Your task to perform on an android device: search for starred emails in the gmail app Image 0: 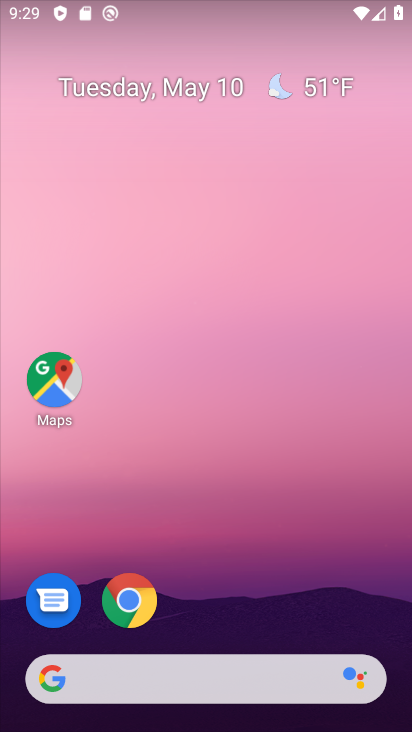
Step 0: drag from (375, 628) to (287, 19)
Your task to perform on an android device: search for starred emails in the gmail app Image 1: 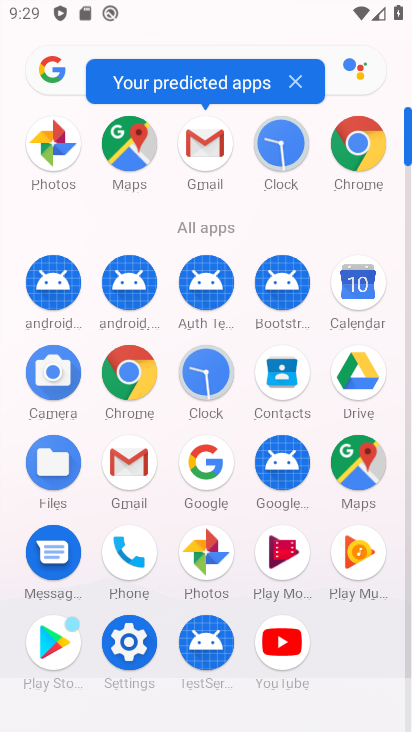
Step 1: click (408, 667)
Your task to perform on an android device: search for starred emails in the gmail app Image 2: 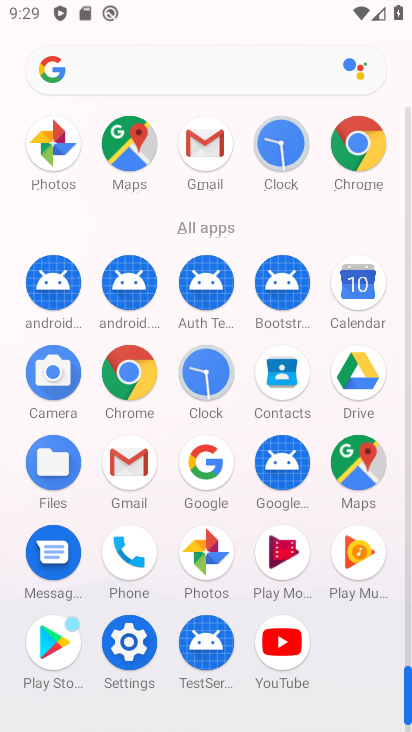
Step 2: click (125, 458)
Your task to perform on an android device: search for starred emails in the gmail app Image 3: 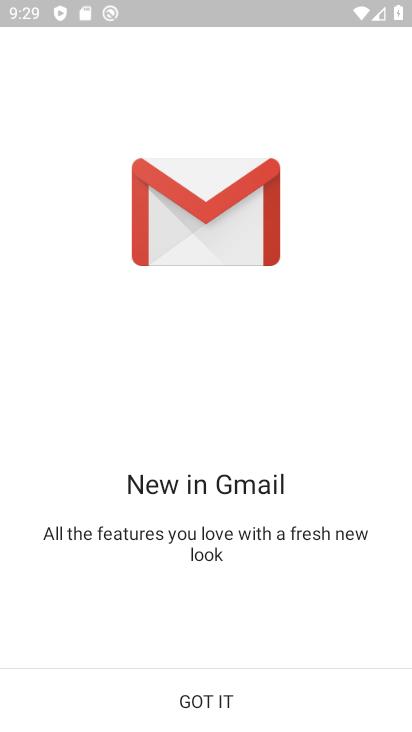
Step 3: click (206, 713)
Your task to perform on an android device: search for starred emails in the gmail app Image 4: 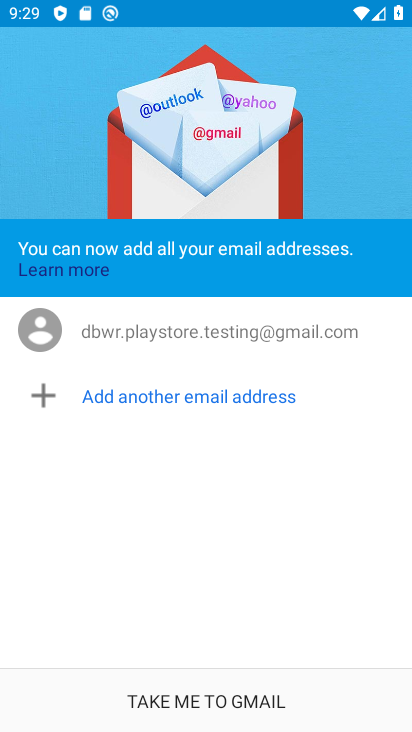
Step 4: click (198, 701)
Your task to perform on an android device: search for starred emails in the gmail app Image 5: 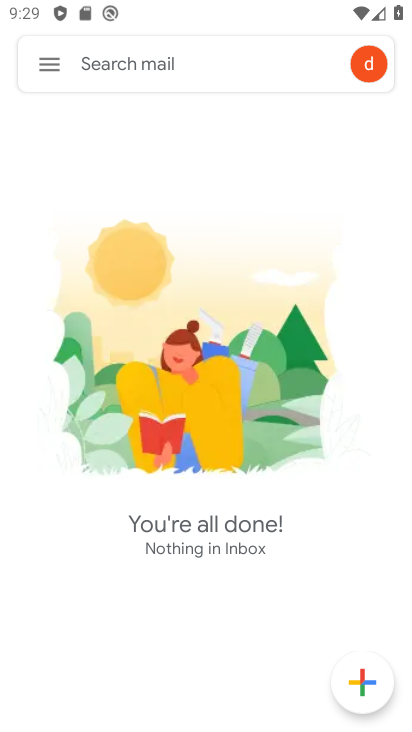
Step 5: click (38, 59)
Your task to perform on an android device: search for starred emails in the gmail app Image 6: 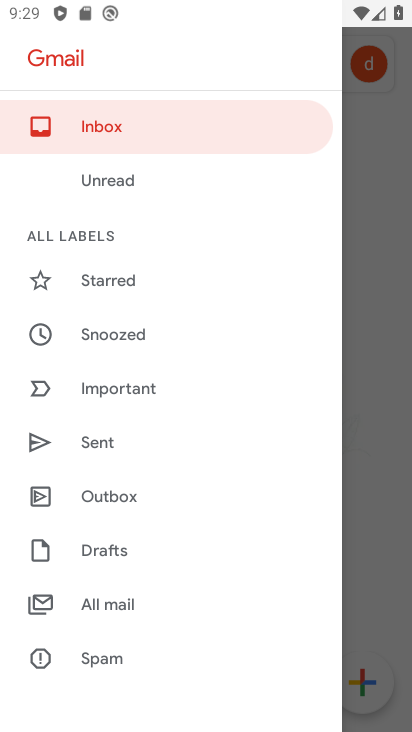
Step 6: click (100, 283)
Your task to perform on an android device: search for starred emails in the gmail app Image 7: 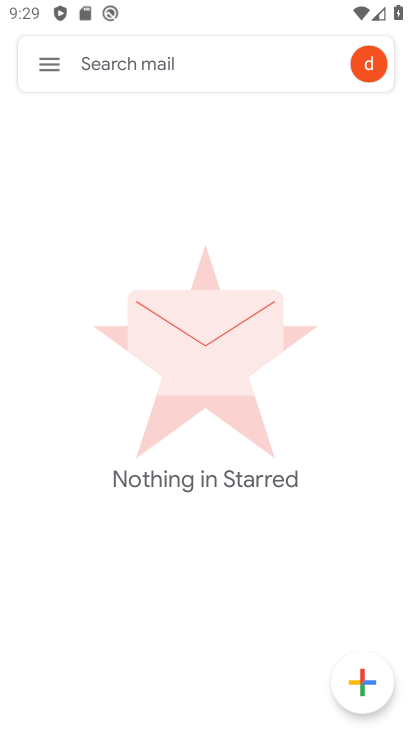
Step 7: task complete